Your task to perform on an android device: change the clock display to analog Image 0: 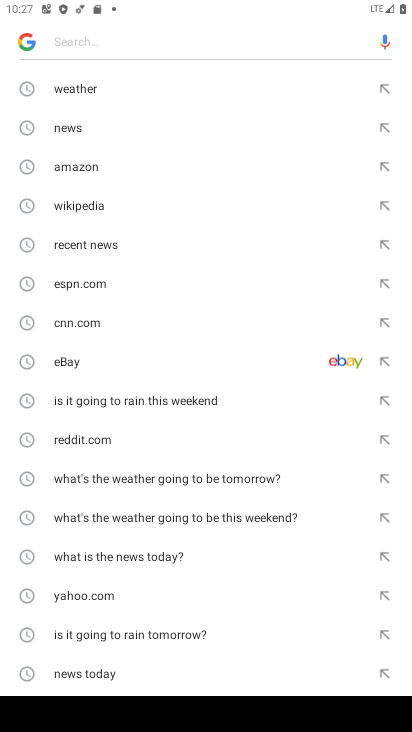
Step 0: press back button
Your task to perform on an android device: change the clock display to analog Image 1: 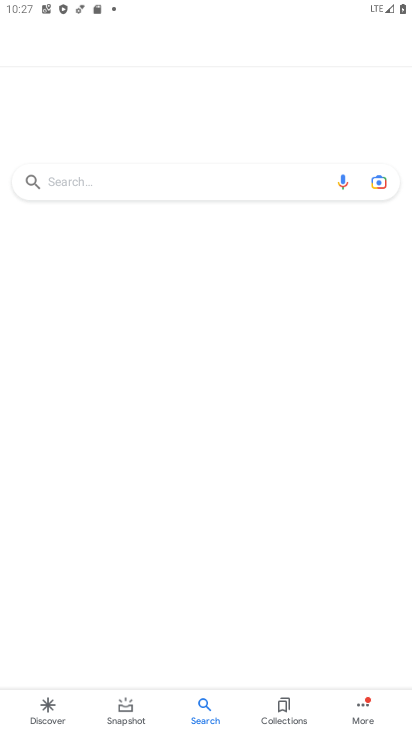
Step 1: press back button
Your task to perform on an android device: change the clock display to analog Image 2: 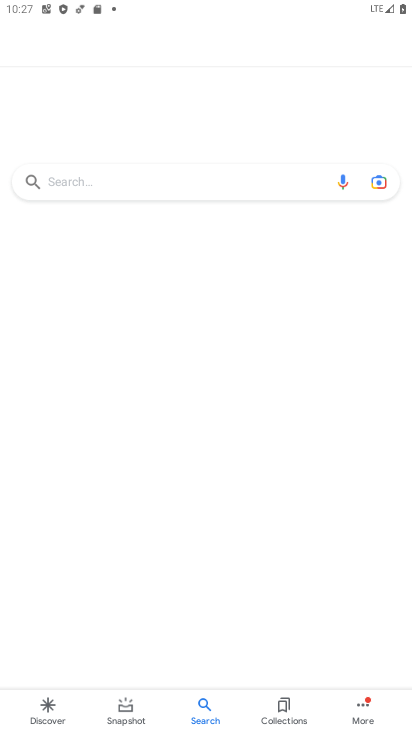
Step 2: press back button
Your task to perform on an android device: change the clock display to analog Image 3: 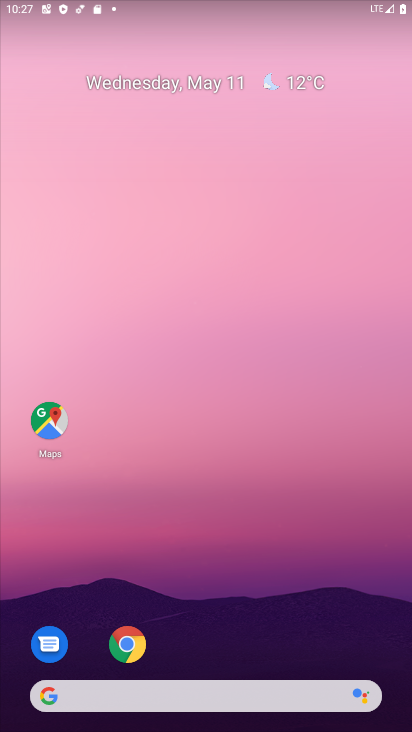
Step 3: drag from (333, 607) to (357, 54)
Your task to perform on an android device: change the clock display to analog Image 4: 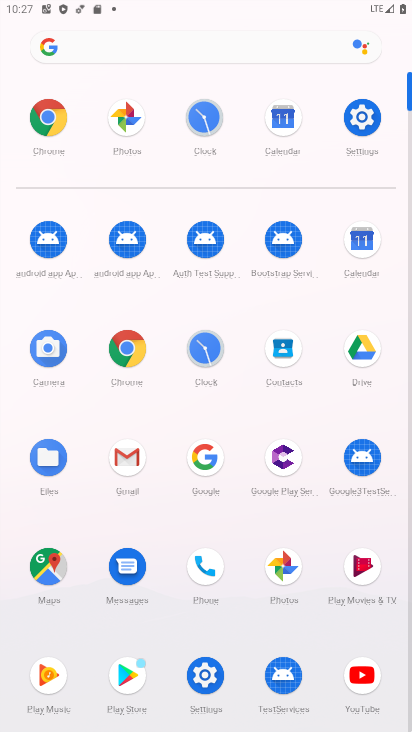
Step 4: click (196, 136)
Your task to perform on an android device: change the clock display to analog Image 5: 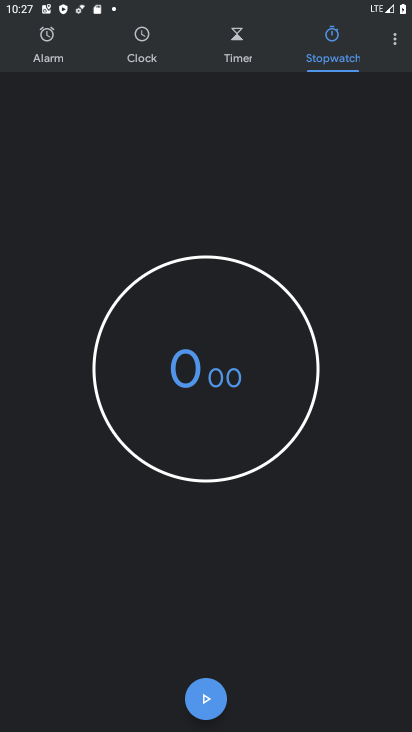
Step 5: click (388, 49)
Your task to perform on an android device: change the clock display to analog Image 6: 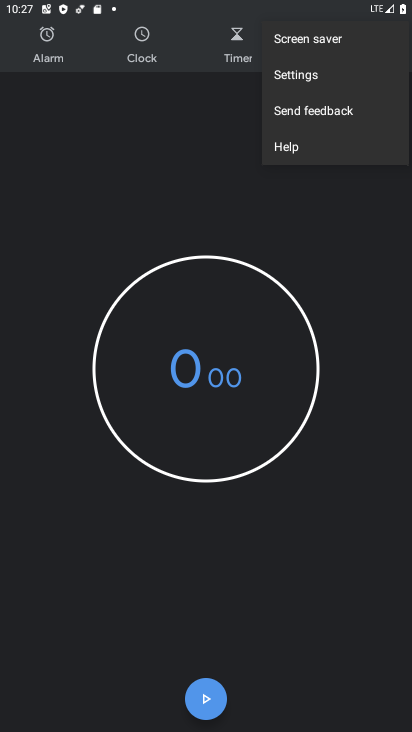
Step 6: click (352, 79)
Your task to perform on an android device: change the clock display to analog Image 7: 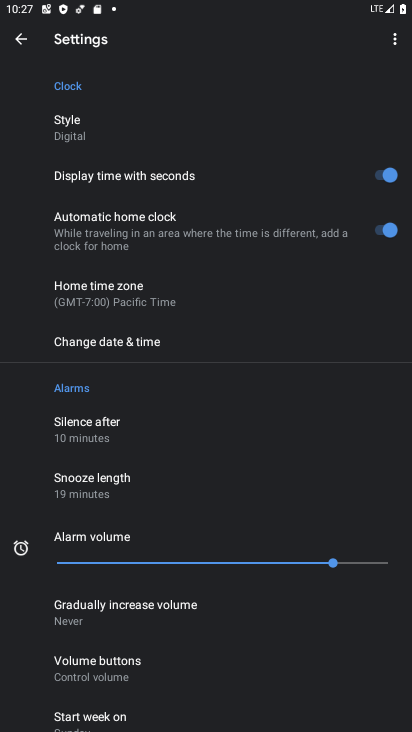
Step 7: click (213, 115)
Your task to perform on an android device: change the clock display to analog Image 8: 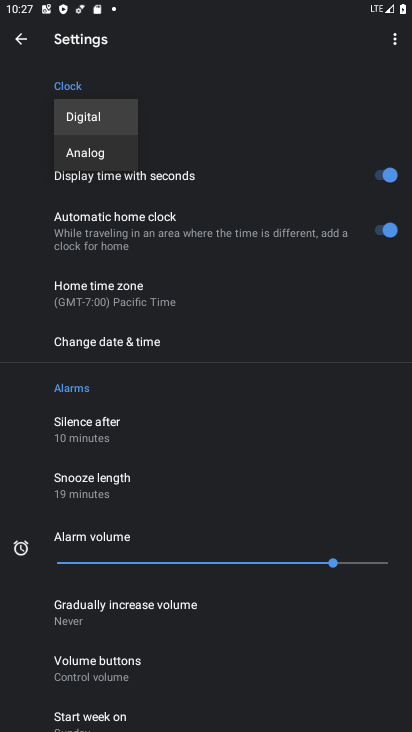
Step 8: click (98, 149)
Your task to perform on an android device: change the clock display to analog Image 9: 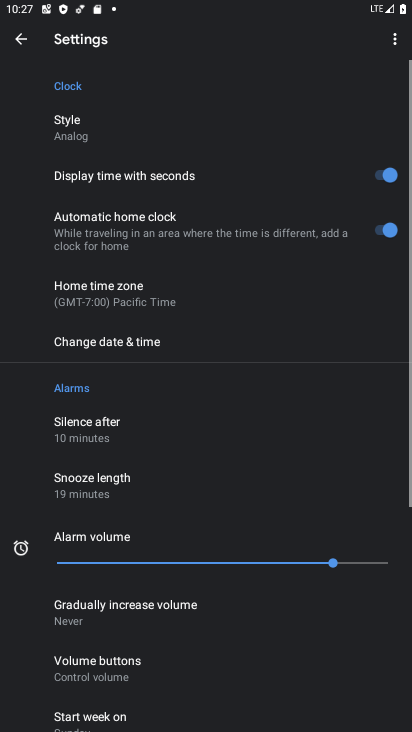
Step 9: task complete